Your task to perform on an android device: Clear the cart on target. Search for "macbook pro 15 inch" on target, select the first entry, and add it to the cart. Image 0: 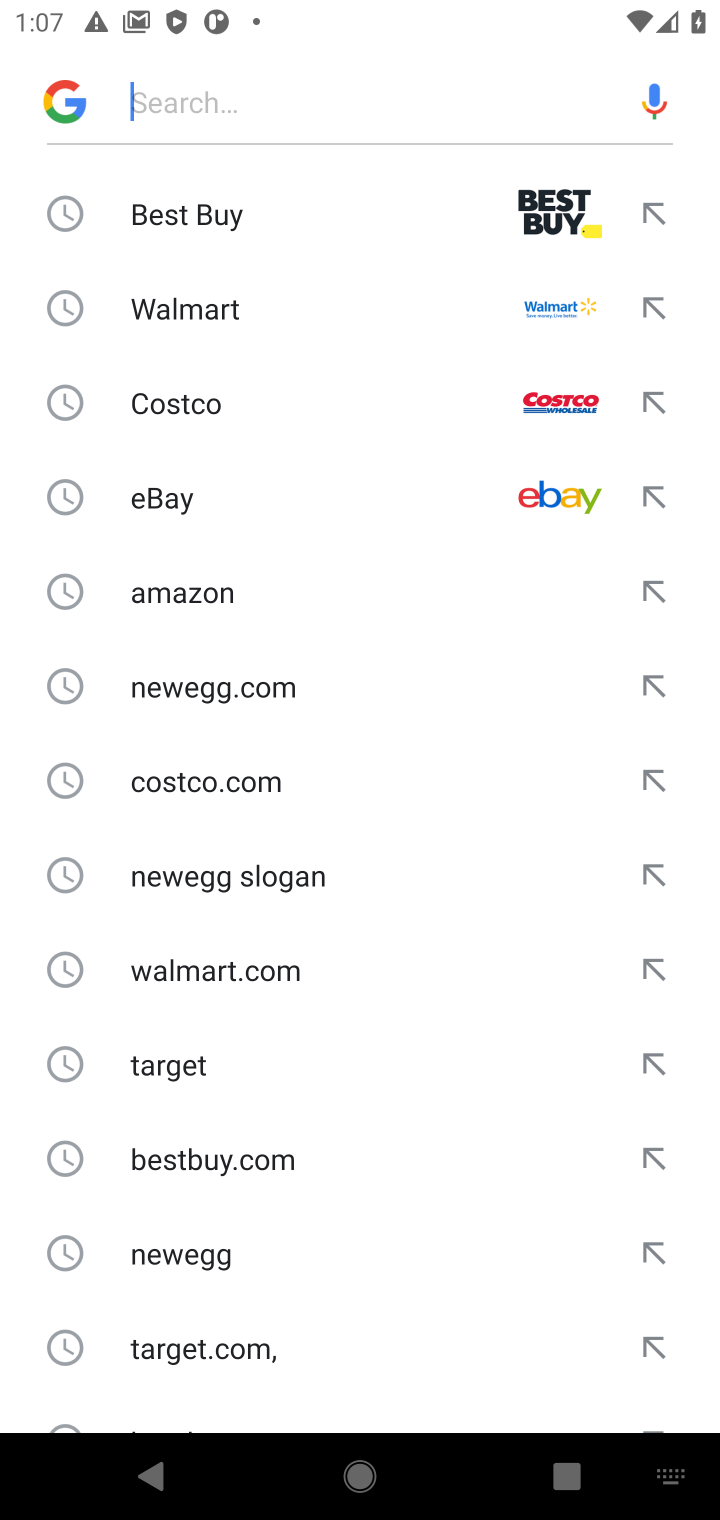
Step 0: click (291, 1079)
Your task to perform on an android device: Clear the cart on target. Search for "macbook pro 15 inch" on target, select the first entry, and add it to the cart. Image 1: 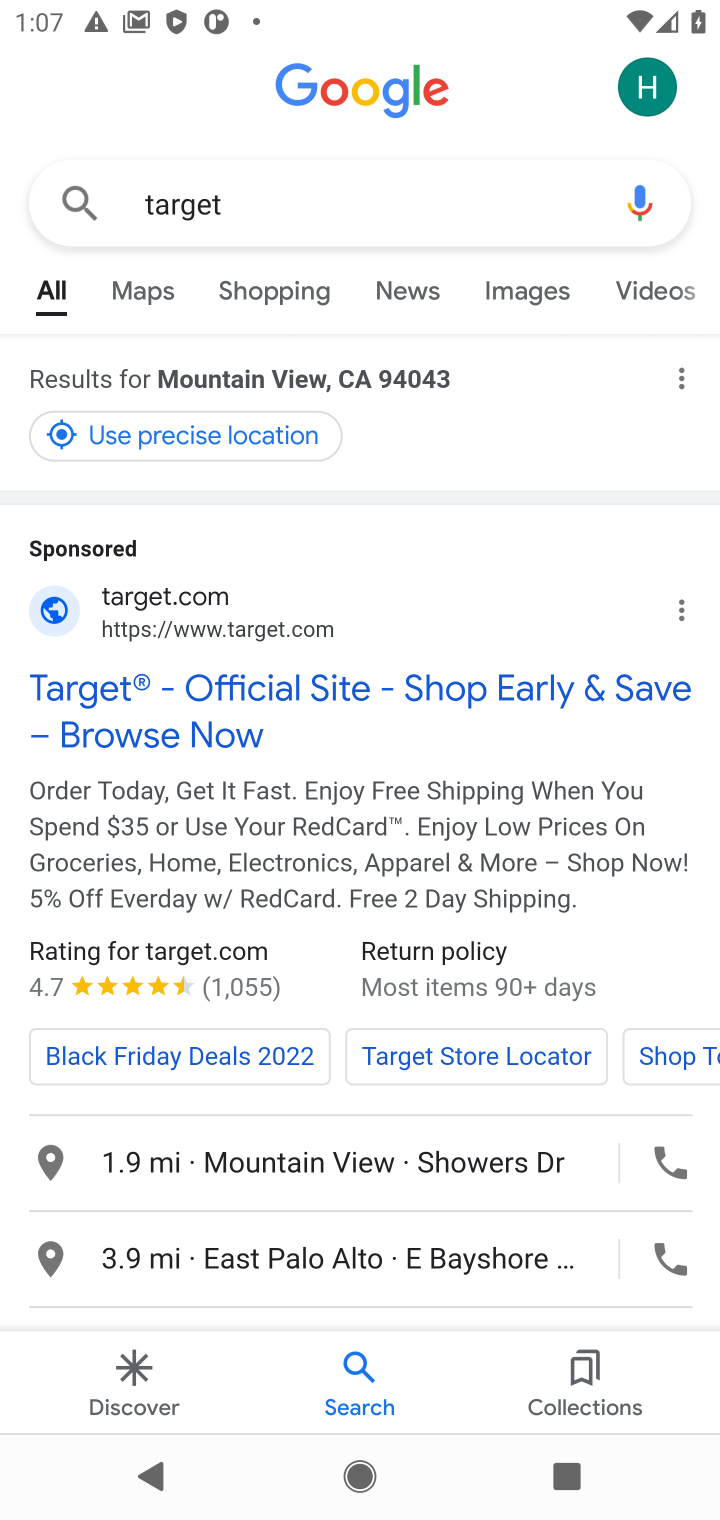
Step 1: click (314, 737)
Your task to perform on an android device: Clear the cart on target. Search for "macbook pro 15 inch" on target, select the first entry, and add it to the cart. Image 2: 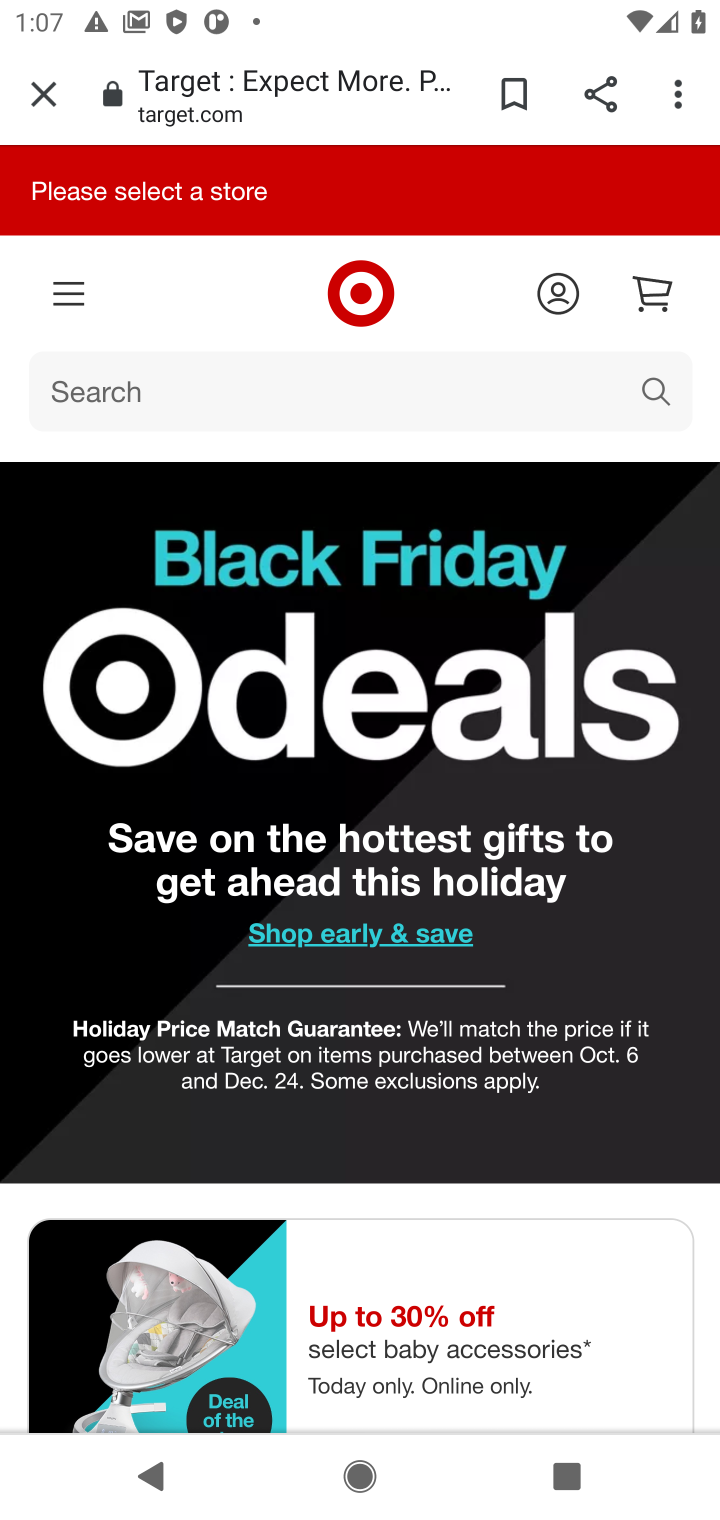
Step 2: click (535, 371)
Your task to perform on an android device: Clear the cart on target. Search for "macbook pro 15 inch" on target, select the first entry, and add it to the cart. Image 3: 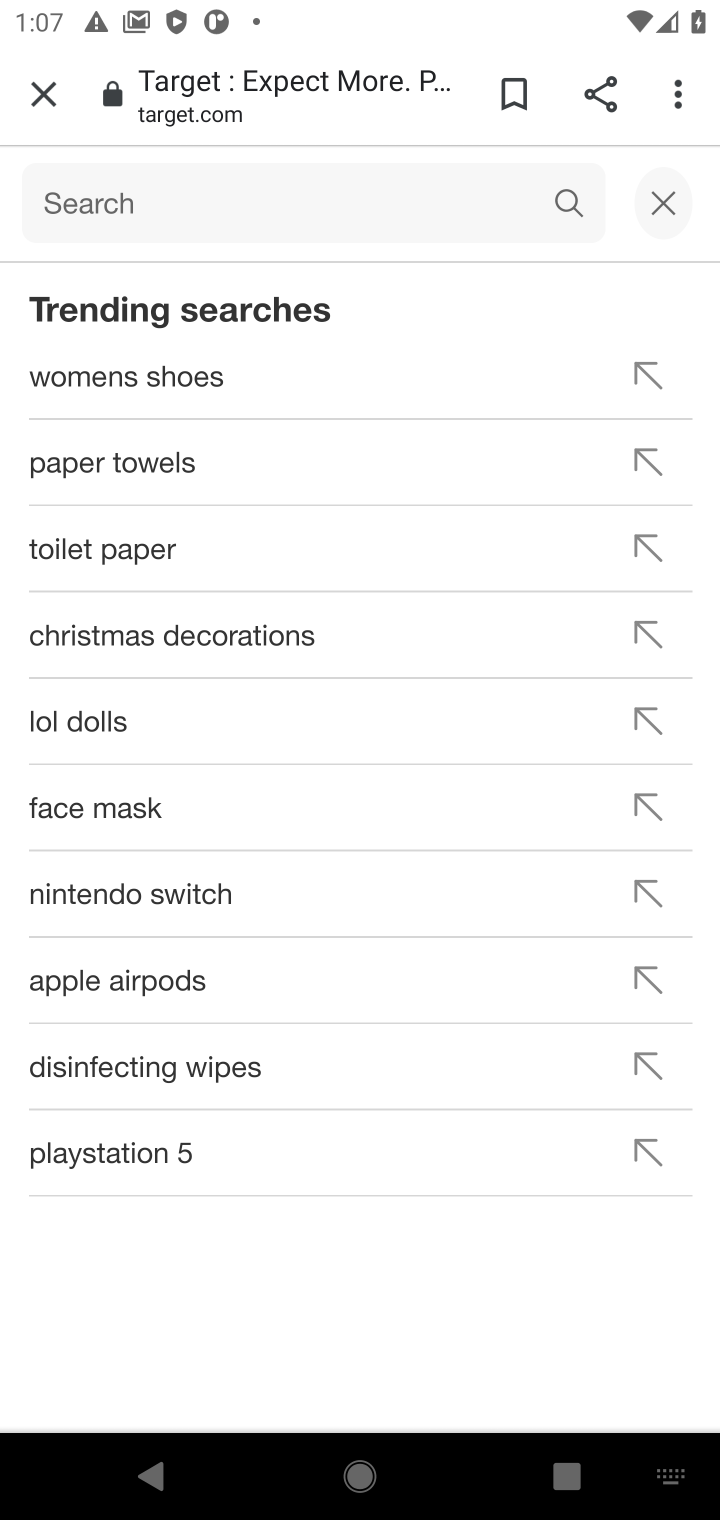
Step 3: type "target"
Your task to perform on an android device: Clear the cart on target. Search for "macbook pro 15 inch" on target, select the first entry, and add it to the cart. Image 4: 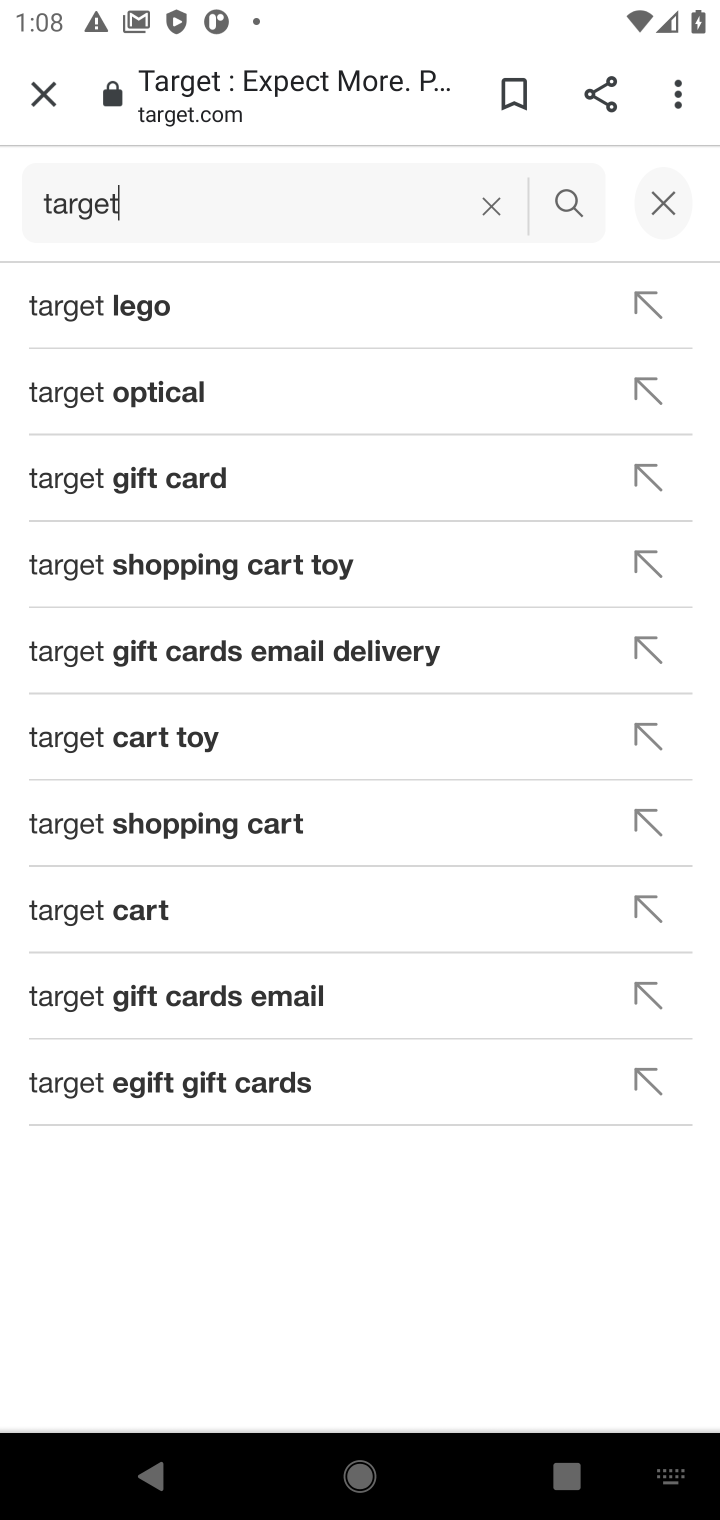
Step 4: click (567, 187)
Your task to perform on an android device: Clear the cart on target. Search for "macbook pro 15 inch" on target, select the first entry, and add it to the cart. Image 5: 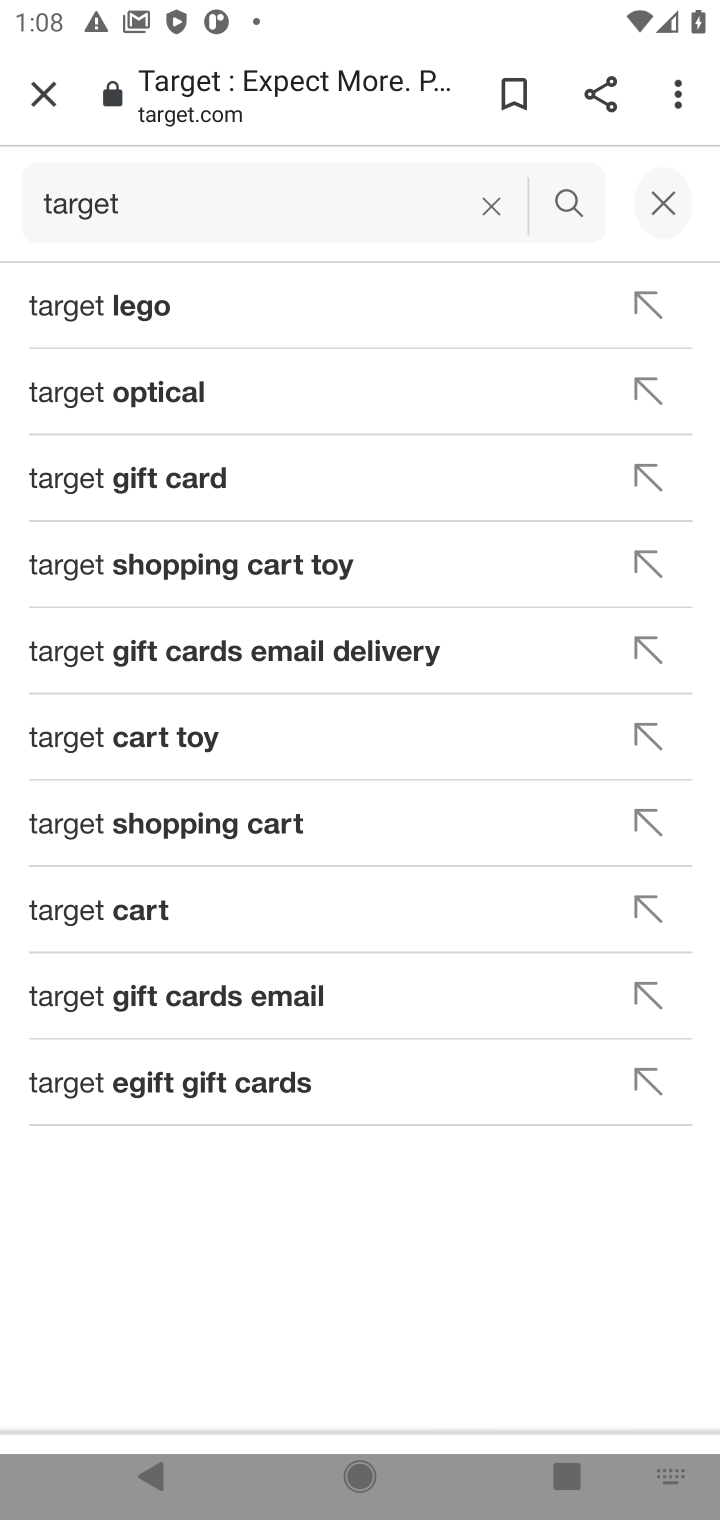
Step 5: task complete